Your task to perform on an android device: What's the weather today? Image 0: 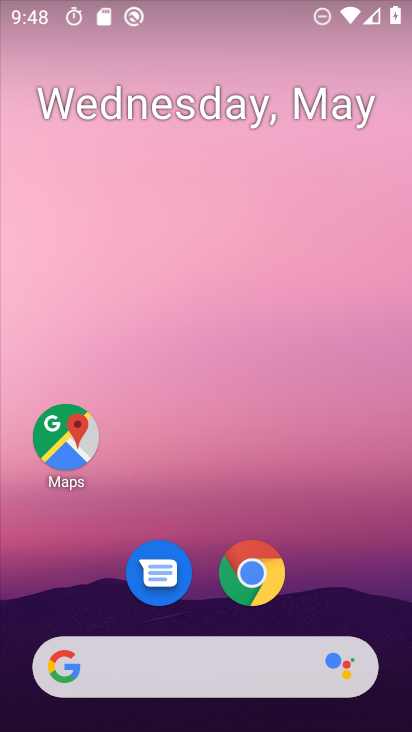
Step 0: drag from (383, 623) to (322, 212)
Your task to perform on an android device: What's the weather today? Image 1: 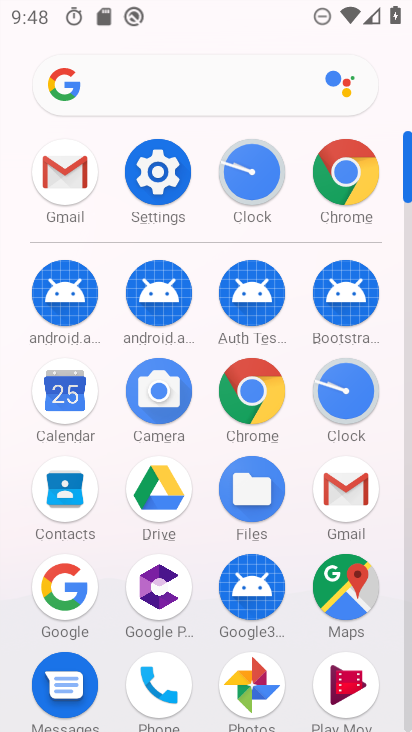
Step 1: press back button
Your task to perform on an android device: What's the weather today? Image 2: 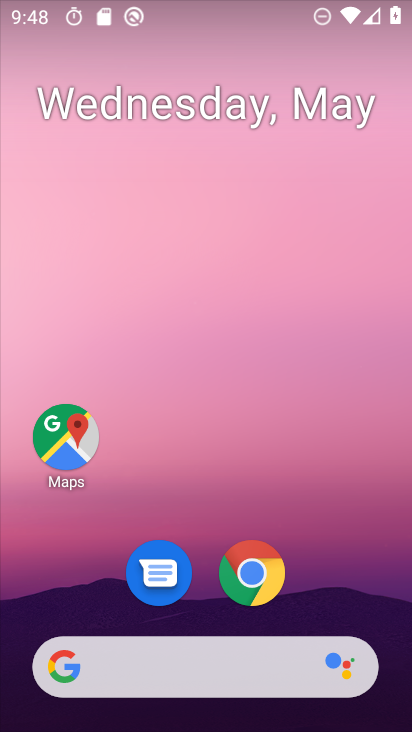
Step 2: drag from (1, 324) to (402, 340)
Your task to perform on an android device: What's the weather today? Image 3: 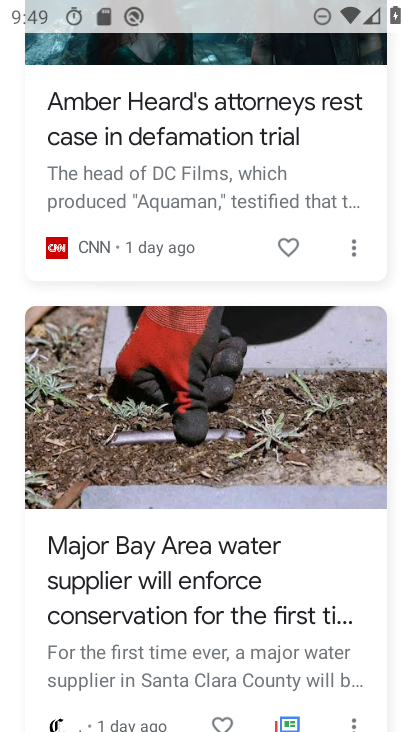
Step 3: drag from (259, 88) to (265, 655)
Your task to perform on an android device: What's the weather today? Image 4: 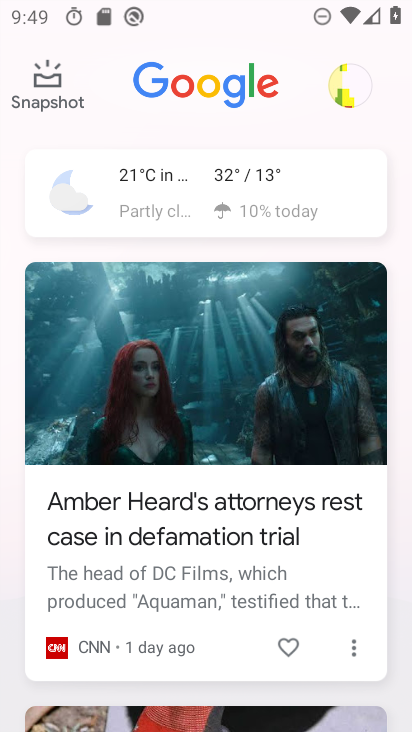
Step 4: click (230, 164)
Your task to perform on an android device: What's the weather today? Image 5: 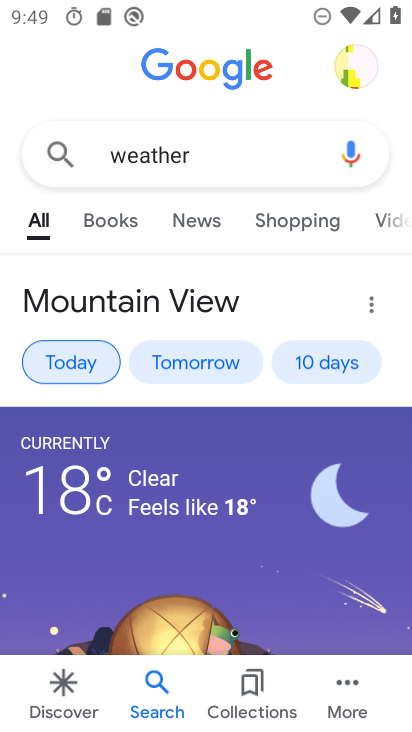
Step 5: click (93, 356)
Your task to perform on an android device: What's the weather today? Image 6: 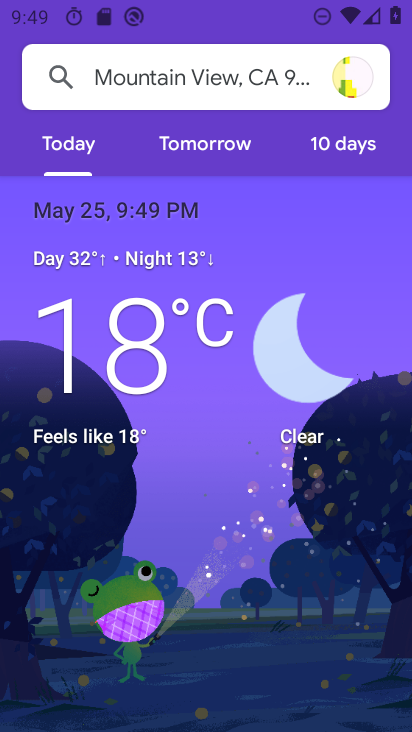
Step 6: task complete